Your task to perform on an android device: toggle notification dots Image 0: 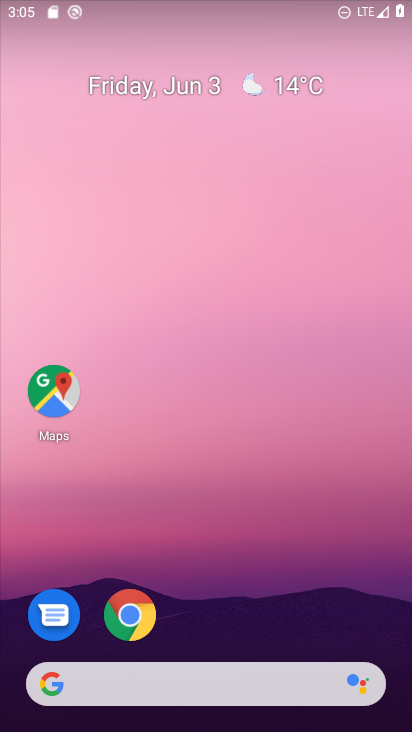
Step 0: drag from (326, 15) to (387, 387)
Your task to perform on an android device: toggle notification dots Image 1: 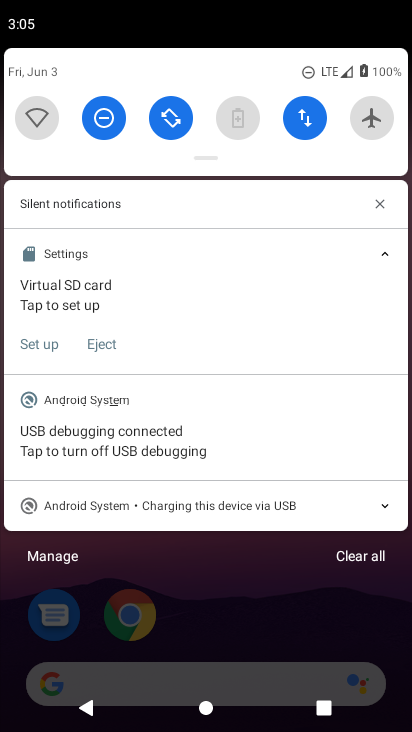
Step 1: drag from (188, 632) to (191, 96)
Your task to perform on an android device: toggle notification dots Image 2: 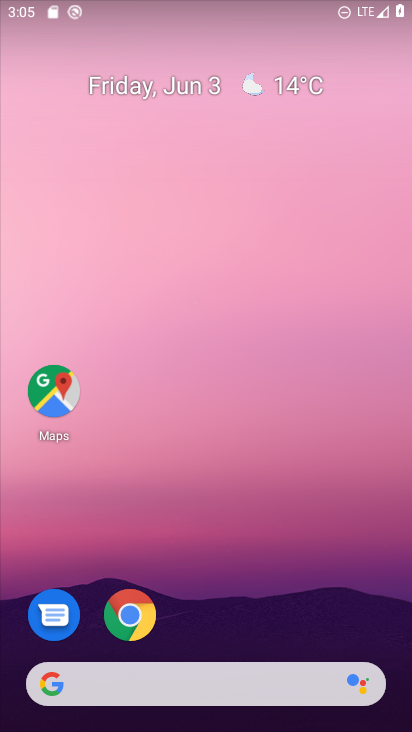
Step 2: drag from (223, 635) to (234, 52)
Your task to perform on an android device: toggle notification dots Image 3: 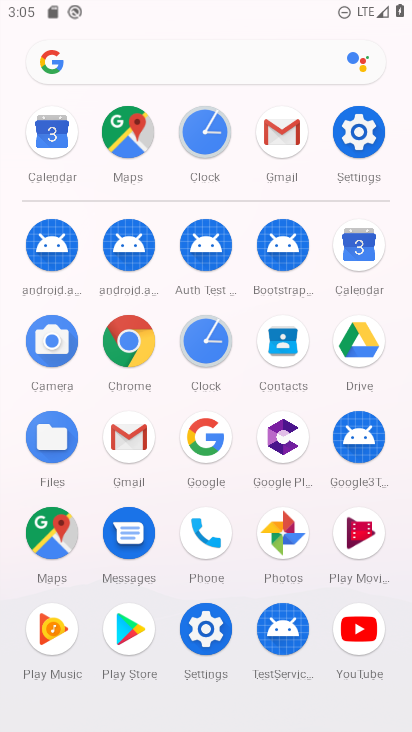
Step 3: click (218, 615)
Your task to perform on an android device: toggle notification dots Image 4: 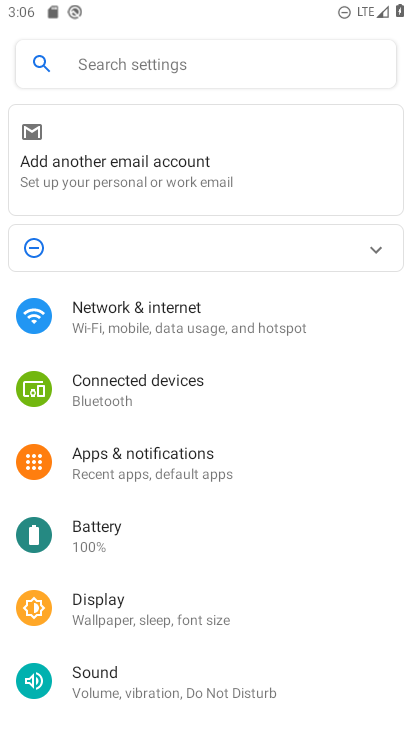
Step 4: drag from (219, 585) to (226, 75)
Your task to perform on an android device: toggle notification dots Image 5: 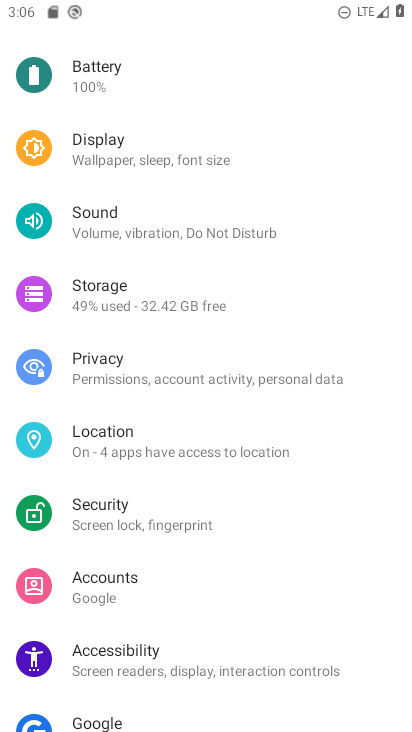
Step 5: drag from (169, 241) to (261, 709)
Your task to perform on an android device: toggle notification dots Image 6: 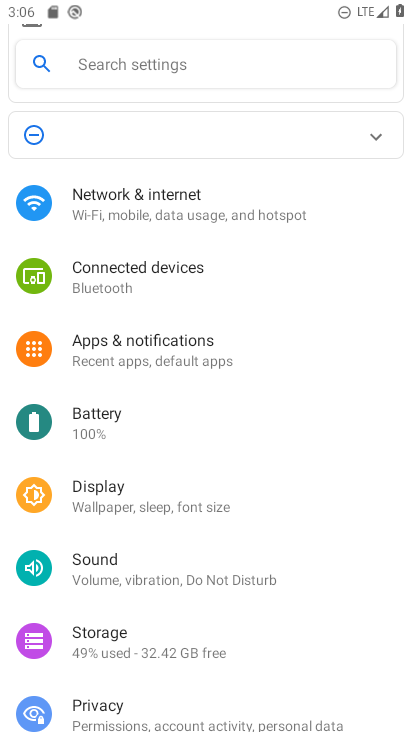
Step 6: click (174, 339)
Your task to perform on an android device: toggle notification dots Image 7: 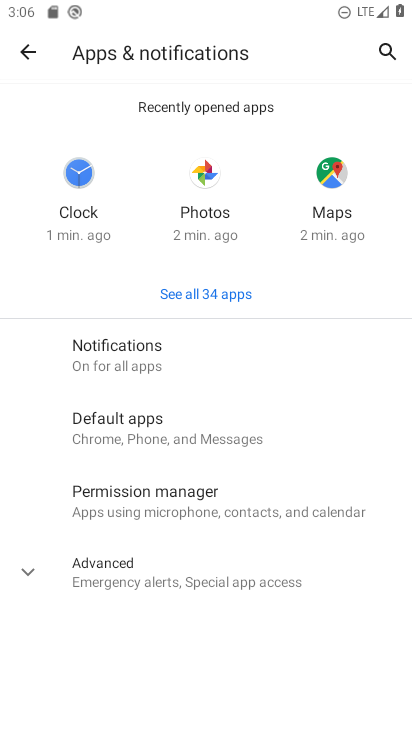
Step 7: drag from (202, 581) to (225, 261)
Your task to perform on an android device: toggle notification dots Image 8: 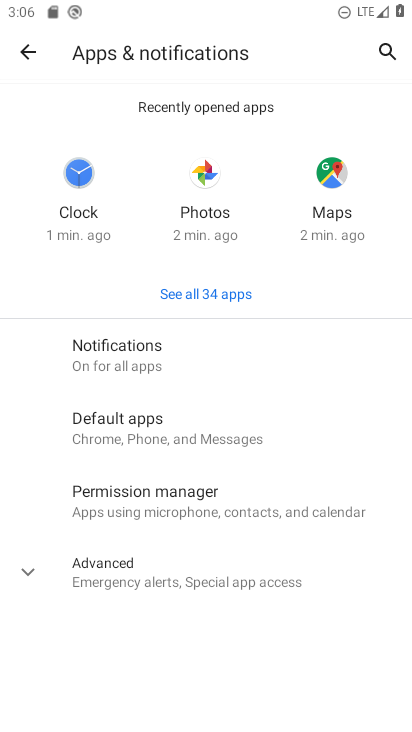
Step 8: click (181, 339)
Your task to perform on an android device: toggle notification dots Image 9: 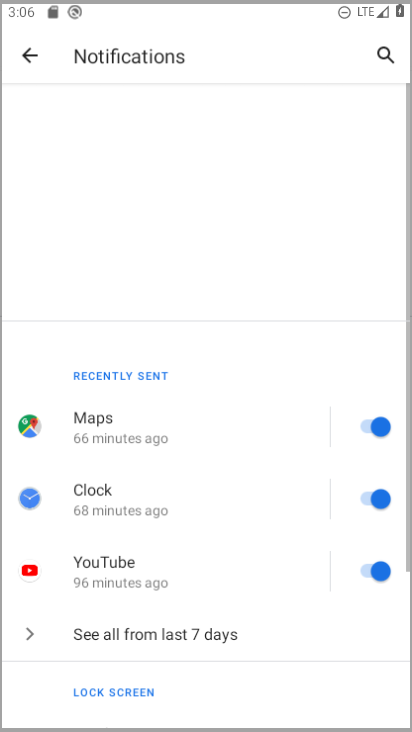
Step 9: drag from (268, 482) to (309, 100)
Your task to perform on an android device: toggle notification dots Image 10: 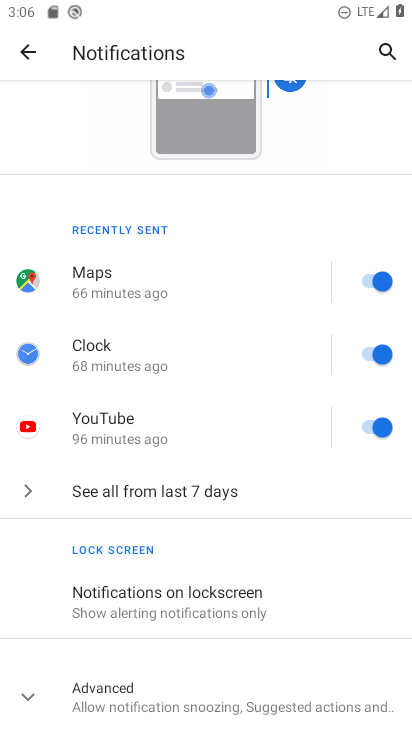
Step 10: drag from (241, 657) to (264, 191)
Your task to perform on an android device: toggle notification dots Image 11: 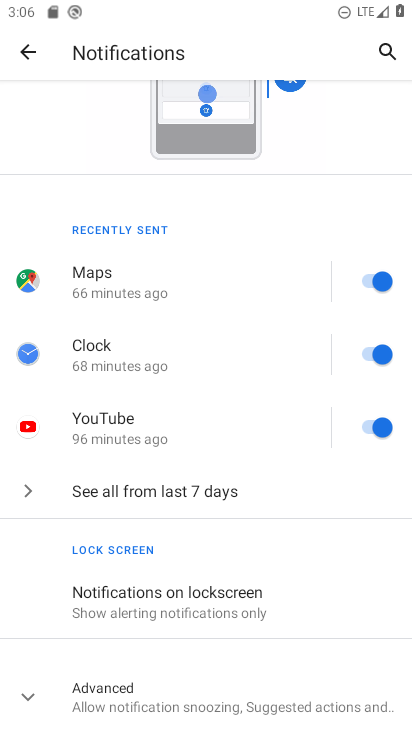
Step 11: click (173, 689)
Your task to perform on an android device: toggle notification dots Image 12: 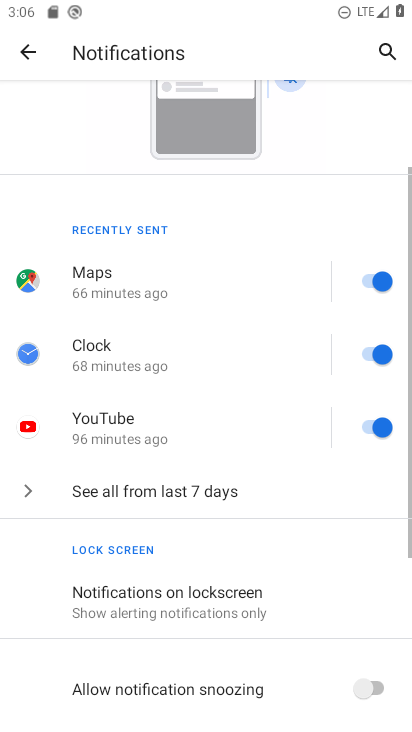
Step 12: drag from (188, 602) to (228, 109)
Your task to perform on an android device: toggle notification dots Image 13: 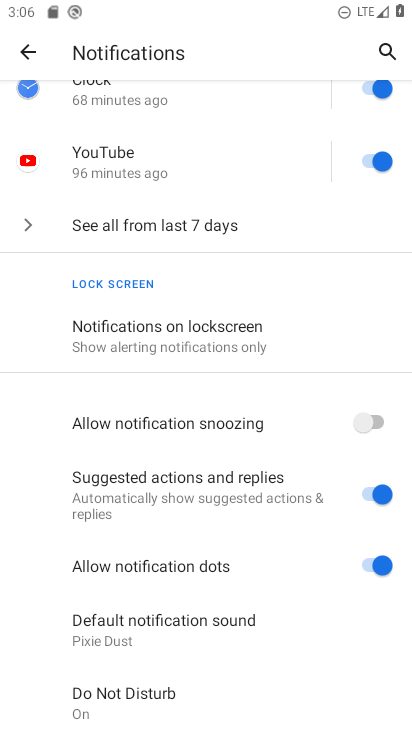
Step 13: drag from (271, 668) to (296, 260)
Your task to perform on an android device: toggle notification dots Image 14: 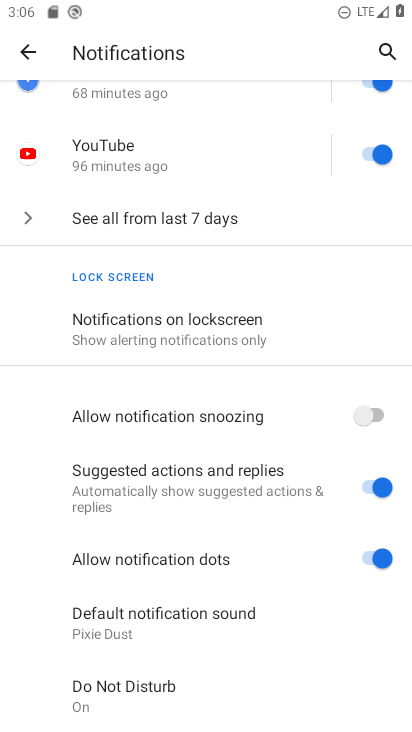
Step 14: click (365, 557)
Your task to perform on an android device: toggle notification dots Image 15: 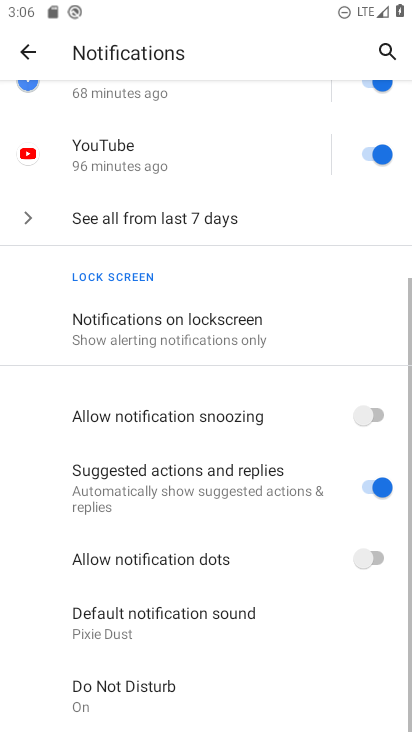
Step 15: task complete